Your task to perform on an android device: What's the weather? Image 0: 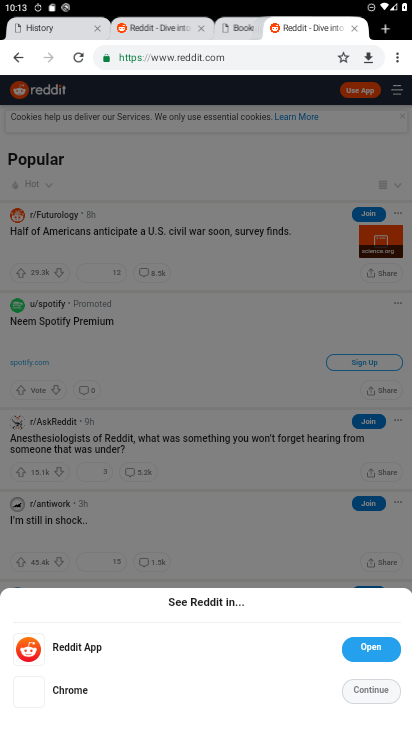
Step 0: press home button
Your task to perform on an android device: What's the weather? Image 1: 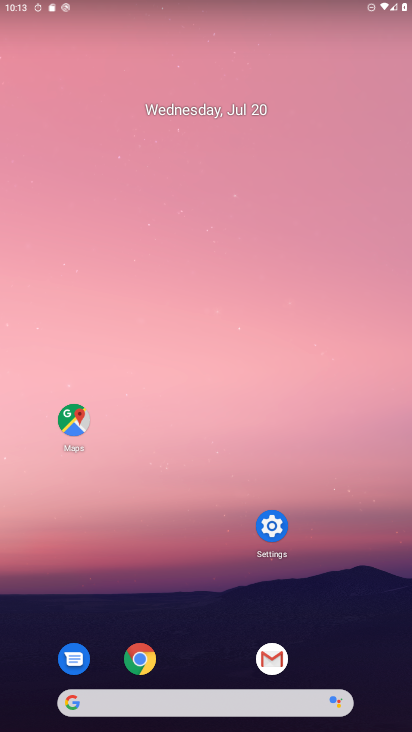
Step 1: click (196, 708)
Your task to perform on an android device: What's the weather? Image 2: 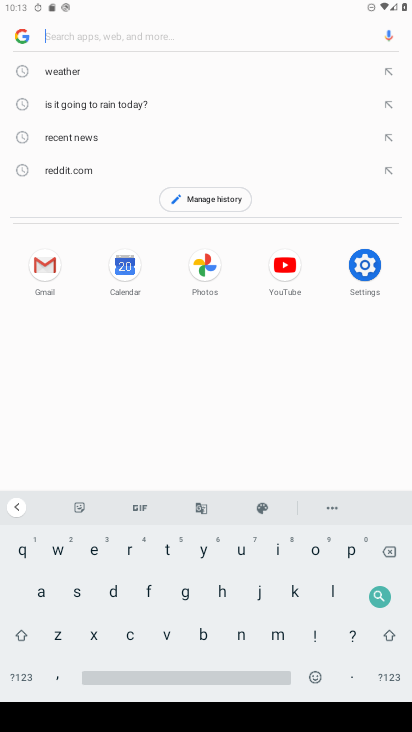
Step 2: click (74, 75)
Your task to perform on an android device: What's the weather? Image 3: 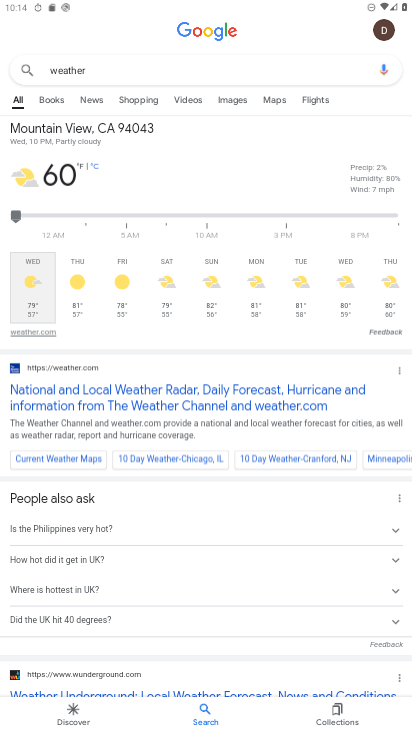
Step 3: task complete